Your task to perform on an android device: toggle javascript in the chrome app Image 0: 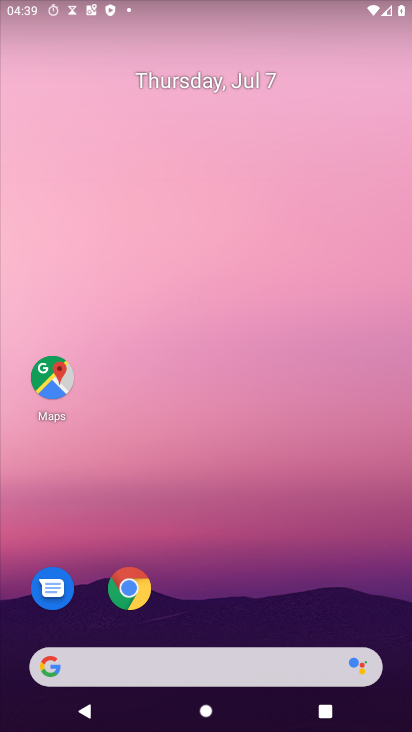
Step 0: press home button
Your task to perform on an android device: toggle javascript in the chrome app Image 1: 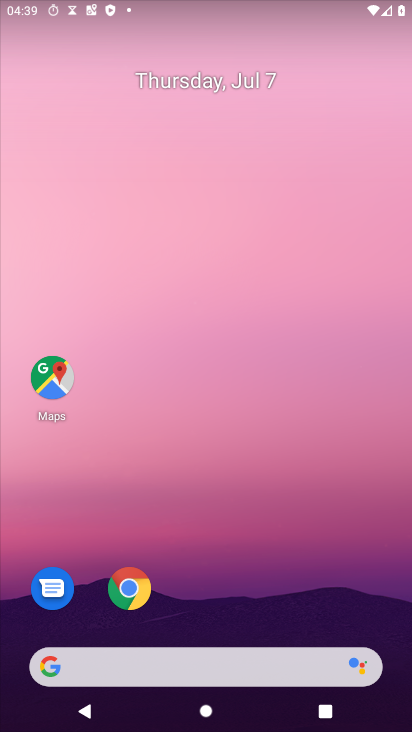
Step 1: drag from (242, 620) to (234, 185)
Your task to perform on an android device: toggle javascript in the chrome app Image 2: 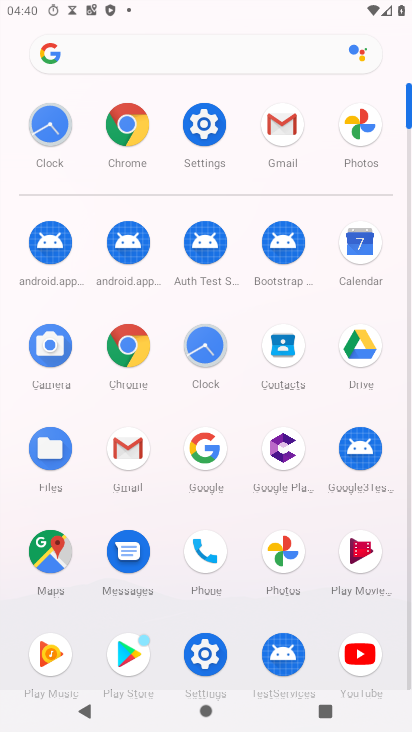
Step 2: click (137, 135)
Your task to perform on an android device: toggle javascript in the chrome app Image 3: 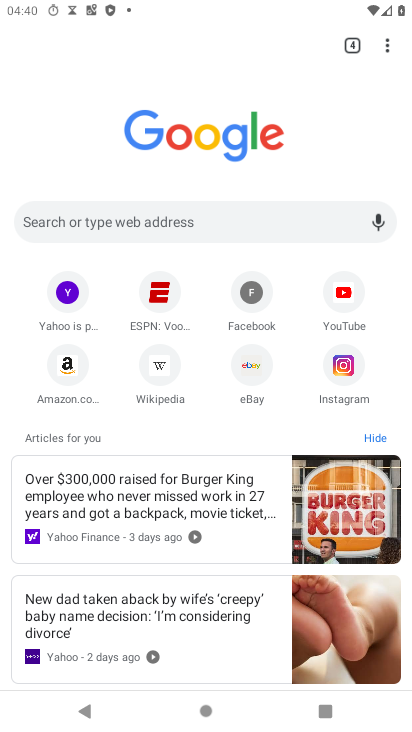
Step 3: drag from (385, 45) to (226, 379)
Your task to perform on an android device: toggle javascript in the chrome app Image 4: 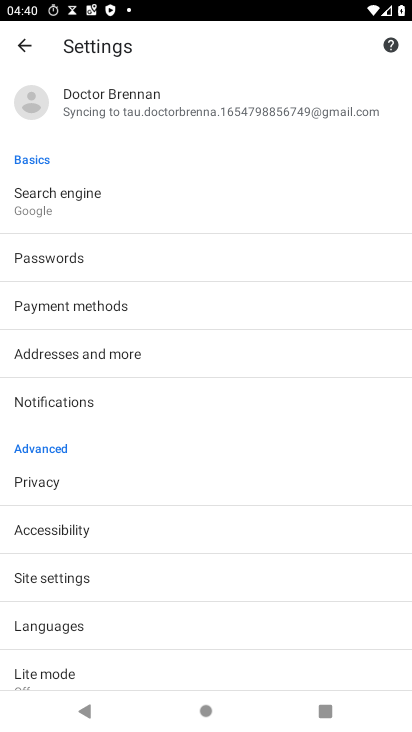
Step 4: click (52, 579)
Your task to perform on an android device: toggle javascript in the chrome app Image 5: 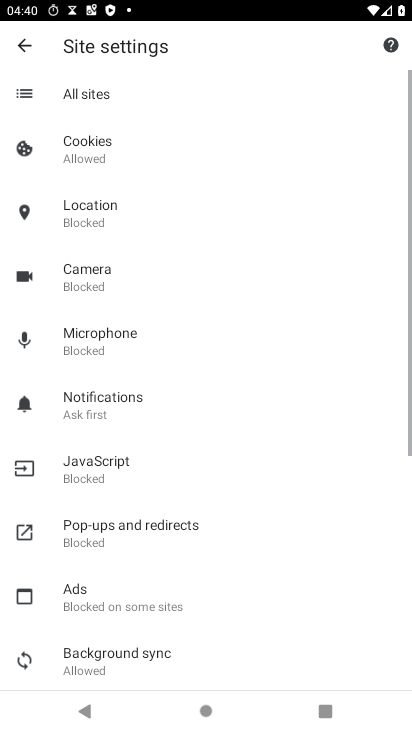
Step 5: click (97, 476)
Your task to perform on an android device: toggle javascript in the chrome app Image 6: 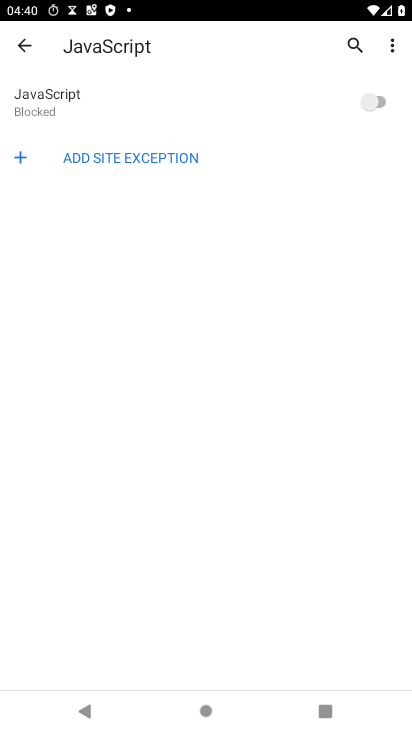
Step 6: click (363, 105)
Your task to perform on an android device: toggle javascript in the chrome app Image 7: 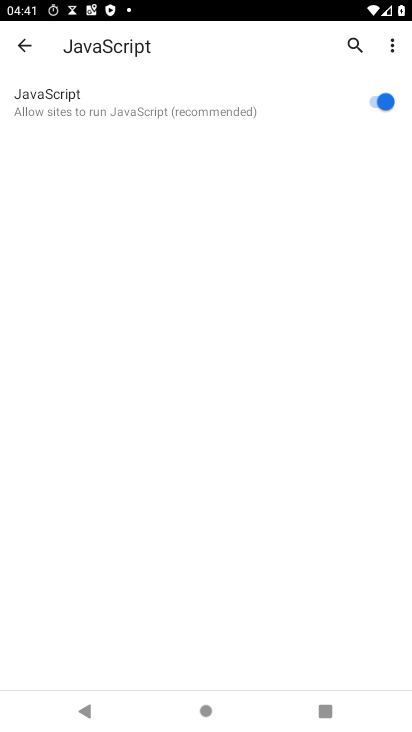
Step 7: task complete